Your task to perform on an android device: See recent photos Image 0: 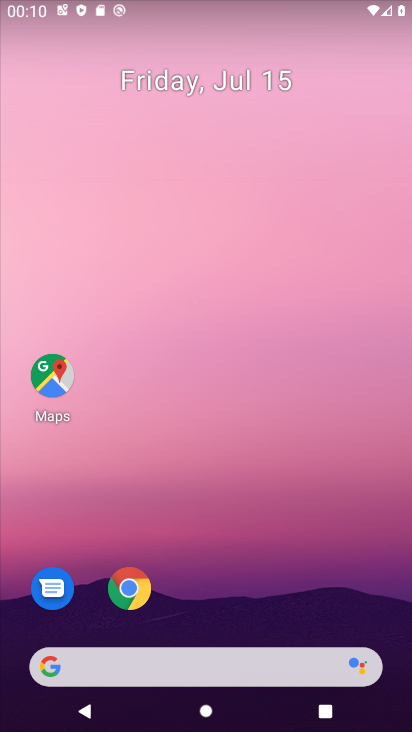
Step 0: drag from (279, 588) to (311, 6)
Your task to perform on an android device: See recent photos Image 1: 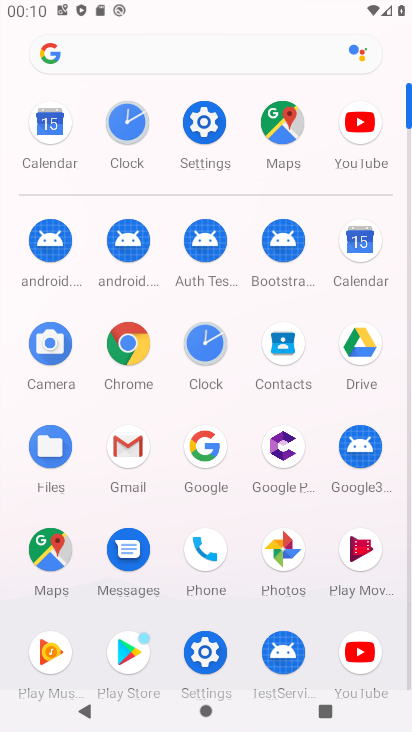
Step 1: click (293, 546)
Your task to perform on an android device: See recent photos Image 2: 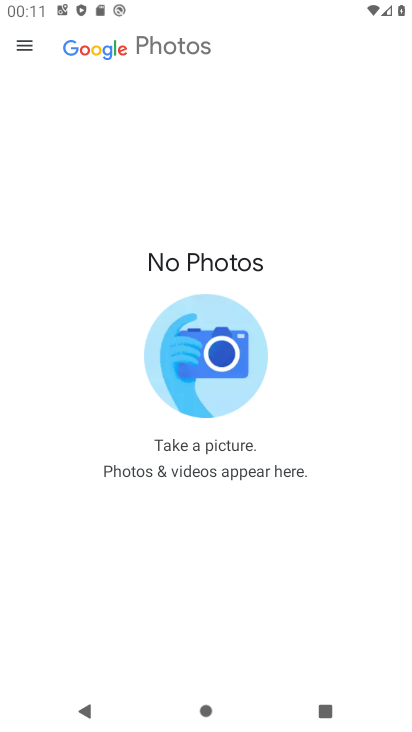
Step 2: task complete